Your task to perform on an android device: Empty the shopping cart on newegg. Search for apple airpods pro on newegg, select the first entry, add it to the cart, then select checkout. Image 0: 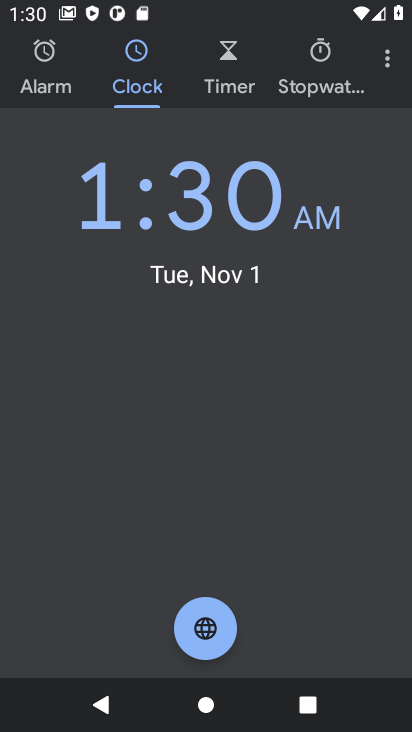
Step 0: press home button
Your task to perform on an android device: Empty the shopping cart on newegg. Search for apple airpods pro on newegg, select the first entry, add it to the cart, then select checkout. Image 1: 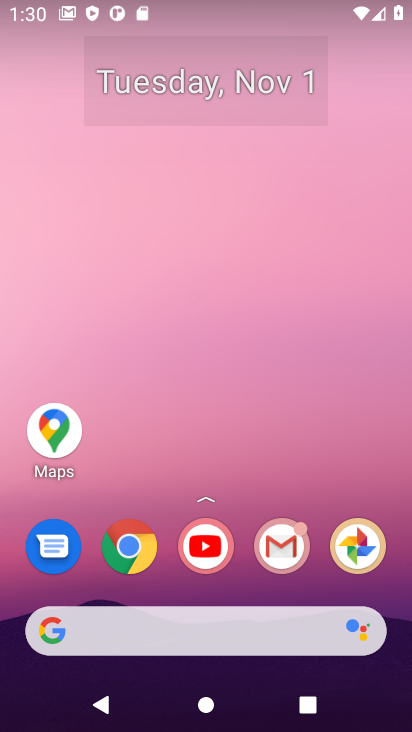
Step 1: click (136, 549)
Your task to perform on an android device: Empty the shopping cart on newegg. Search for apple airpods pro on newegg, select the first entry, add it to the cart, then select checkout. Image 2: 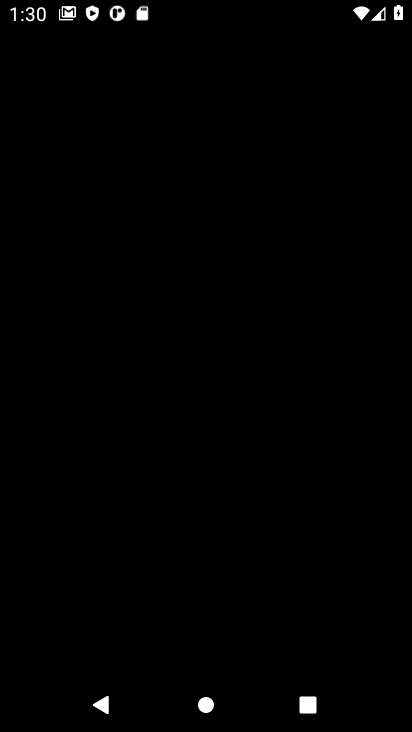
Step 2: press home button
Your task to perform on an android device: Empty the shopping cart on newegg. Search for apple airpods pro on newegg, select the first entry, add it to the cart, then select checkout. Image 3: 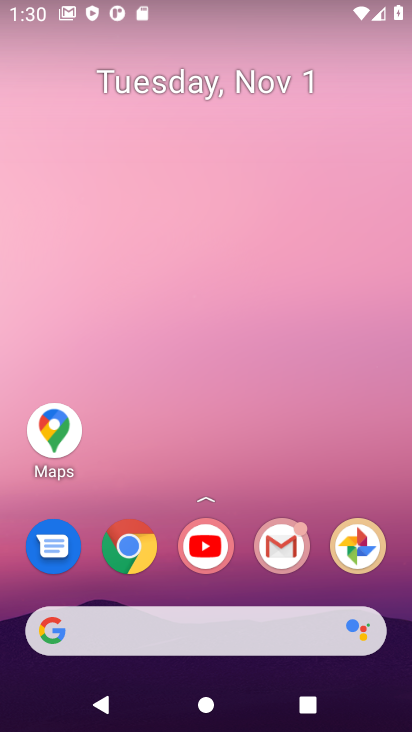
Step 3: click (56, 629)
Your task to perform on an android device: Empty the shopping cart on newegg. Search for apple airpods pro on newegg, select the first entry, add it to the cart, then select checkout. Image 4: 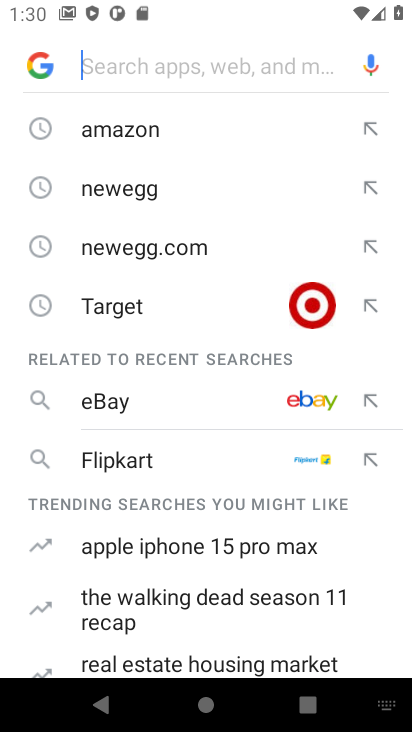
Step 4: type "newegg"
Your task to perform on an android device: Empty the shopping cart on newegg. Search for apple airpods pro on newegg, select the first entry, add it to the cart, then select checkout. Image 5: 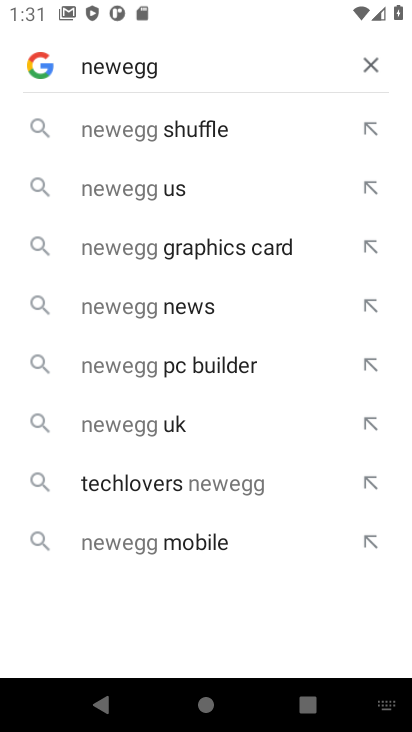
Step 5: click (132, 195)
Your task to perform on an android device: Empty the shopping cart on newegg. Search for apple airpods pro on newegg, select the first entry, add it to the cart, then select checkout. Image 6: 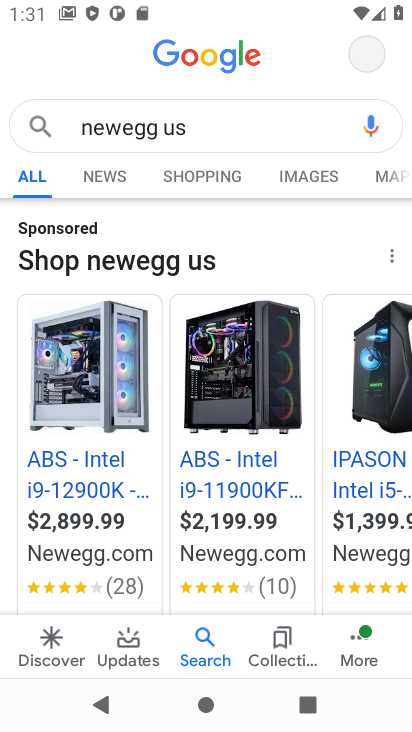
Step 6: drag from (145, 578) to (139, 78)
Your task to perform on an android device: Empty the shopping cart on newegg. Search for apple airpods pro on newegg, select the first entry, add it to the cart, then select checkout. Image 7: 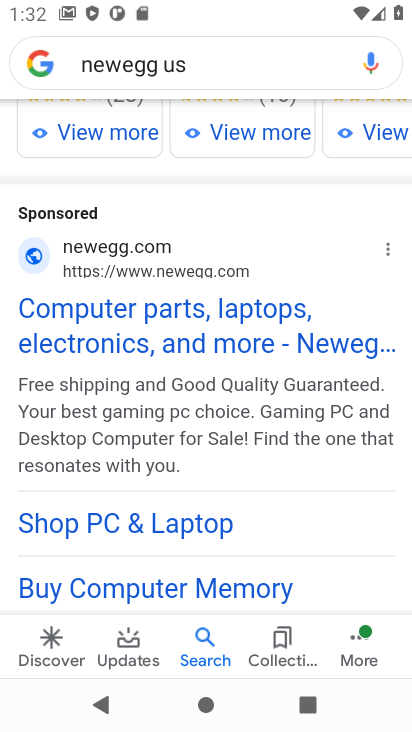
Step 7: click (169, 310)
Your task to perform on an android device: Empty the shopping cart on newegg. Search for apple airpods pro on newegg, select the first entry, add it to the cart, then select checkout. Image 8: 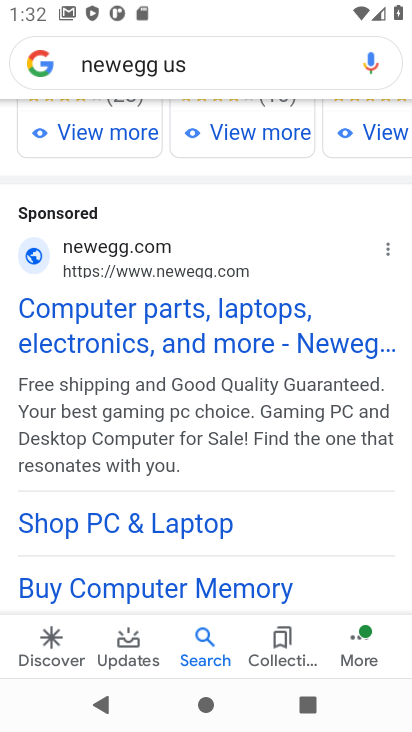
Step 8: click (169, 310)
Your task to perform on an android device: Empty the shopping cart on newegg. Search for apple airpods pro on newegg, select the first entry, add it to the cart, then select checkout. Image 9: 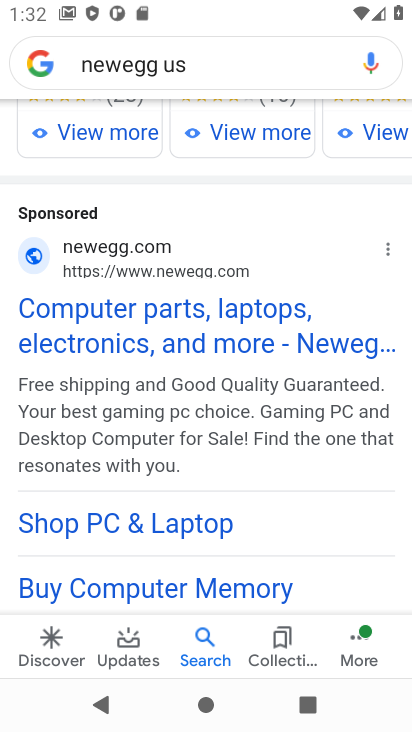
Step 9: click (152, 318)
Your task to perform on an android device: Empty the shopping cart on newegg. Search for apple airpods pro on newegg, select the first entry, add it to the cart, then select checkout. Image 10: 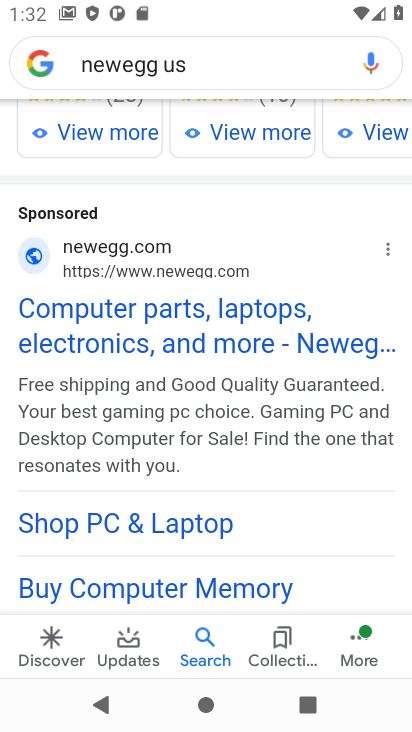
Step 10: click (152, 318)
Your task to perform on an android device: Empty the shopping cart on newegg. Search for apple airpods pro on newegg, select the first entry, add it to the cart, then select checkout. Image 11: 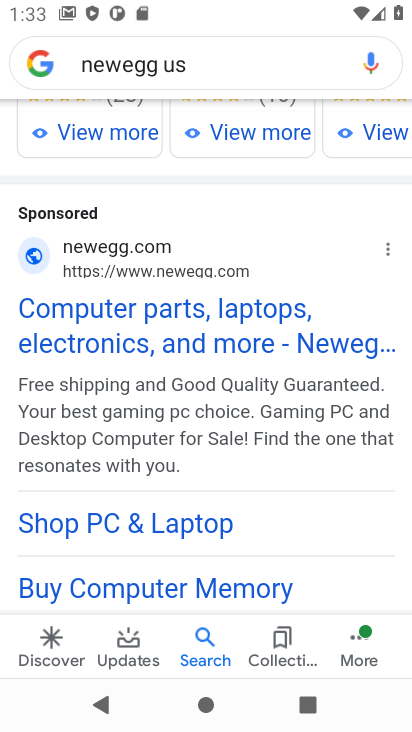
Step 11: click (152, 318)
Your task to perform on an android device: Empty the shopping cart on newegg. Search for apple airpods pro on newegg, select the first entry, add it to the cart, then select checkout. Image 12: 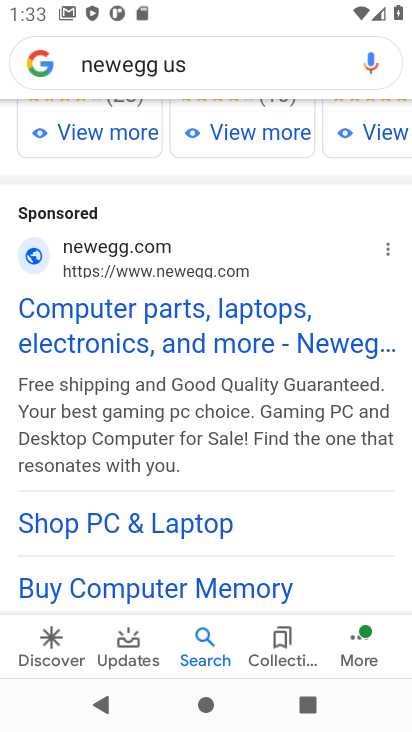
Step 12: click (154, 317)
Your task to perform on an android device: Empty the shopping cart on newegg. Search for apple airpods pro on newegg, select the first entry, add it to the cart, then select checkout. Image 13: 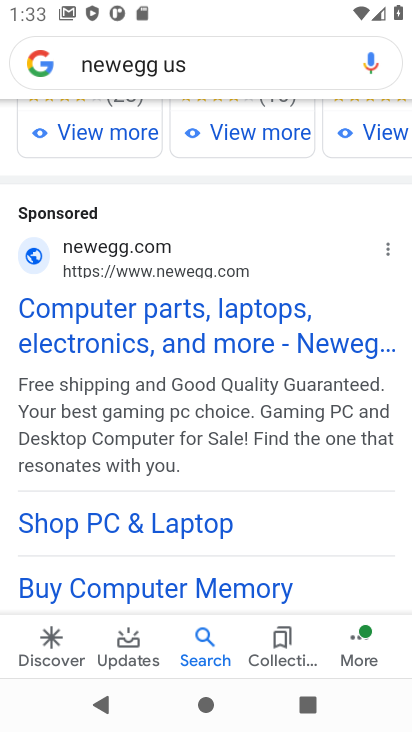
Step 13: task complete